Your task to perform on an android device: turn on data saver in the chrome app Image 0: 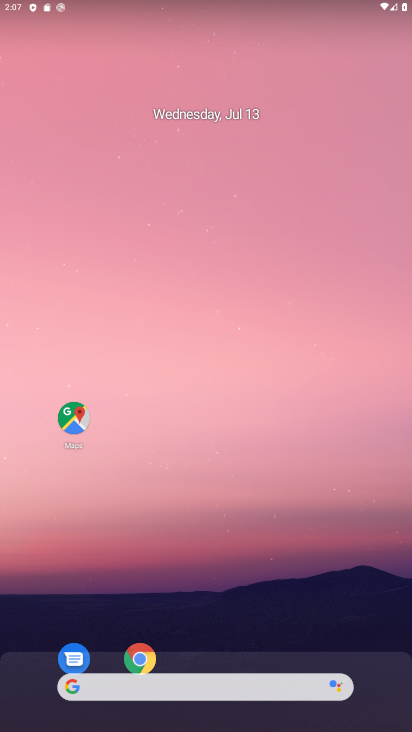
Step 0: click (136, 659)
Your task to perform on an android device: turn on data saver in the chrome app Image 1: 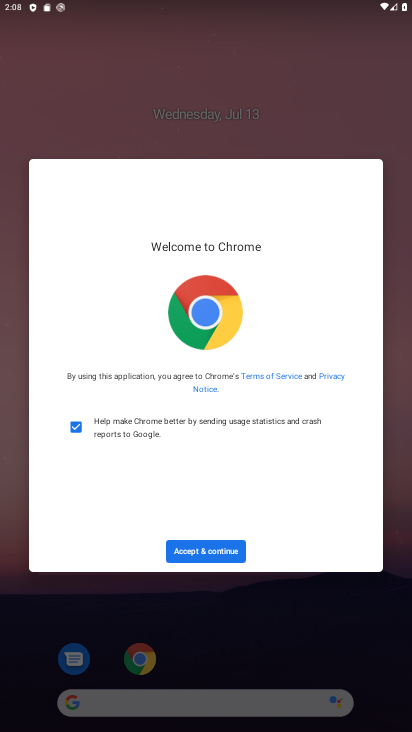
Step 1: click (205, 550)
Your task to perform on an android device: turn on data saver in the chrome app Image 2: 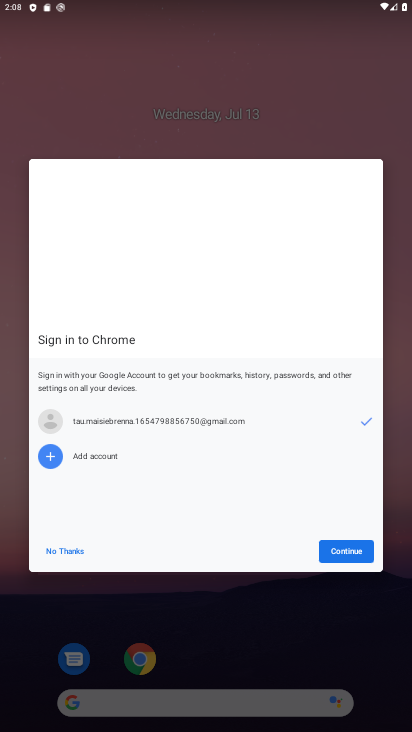
Step 2: click (336, 552)
Your task to perform on an android device: turn on data saver in the chrome app Image 3: 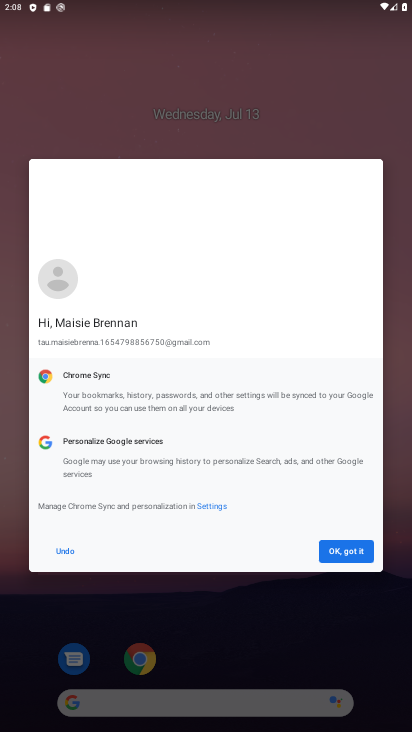
Step 3: click (342, 550)
Your task to perform on an android device: turn on data saver in the chrome app Image 4: 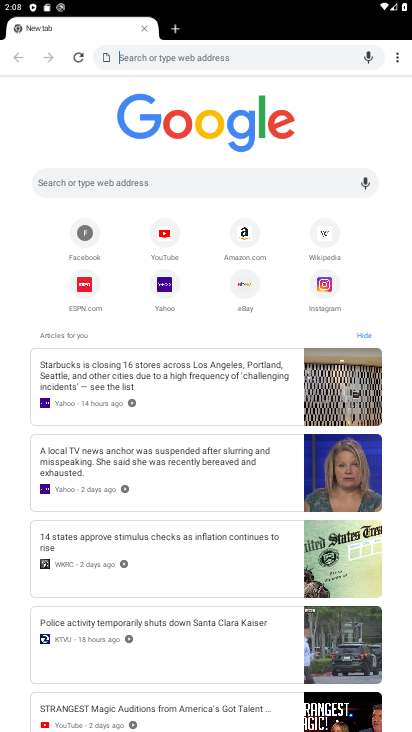
Step 4: click (400, 56)
Your task to perform on an android device: turn on data saver in the chrome app Image 5: 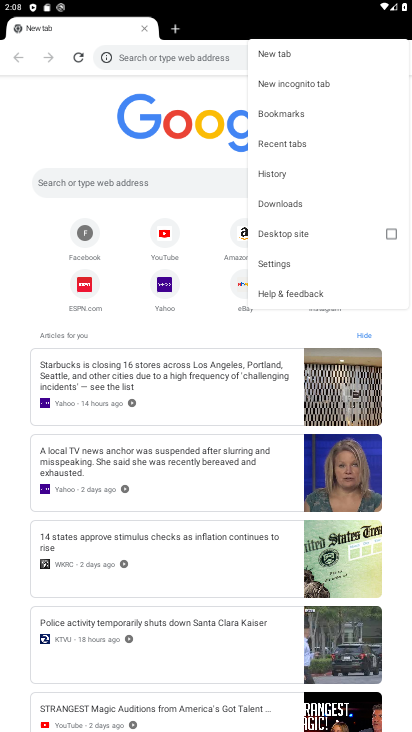
Step 5: click (287, 256)
Your task to perform on an android device: turn on data saver in the chrome app Image 6: 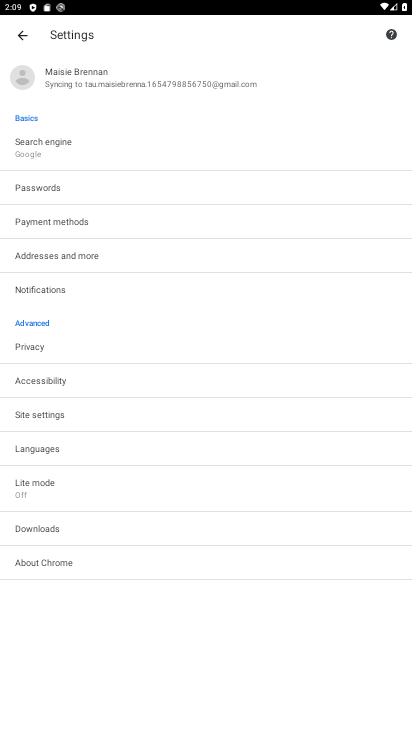
Step 6: click (71, 493)
Your task to perform on an android device: turn on data saver in the chrome app Image 7: 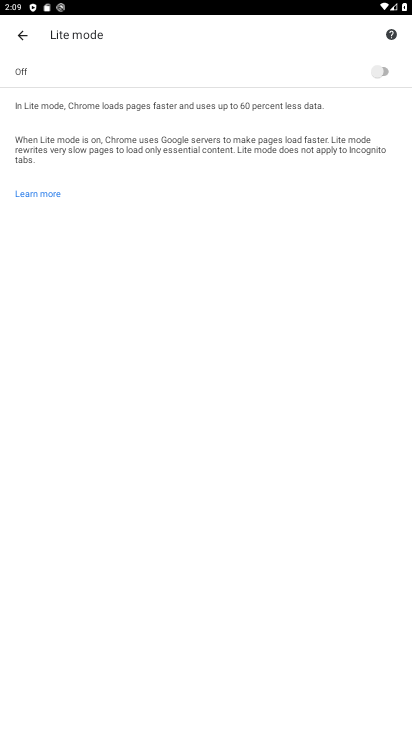
Step 7: click (379, 66)
Your task to perform on an android device: turn on data saver in the chrome app Image 8: 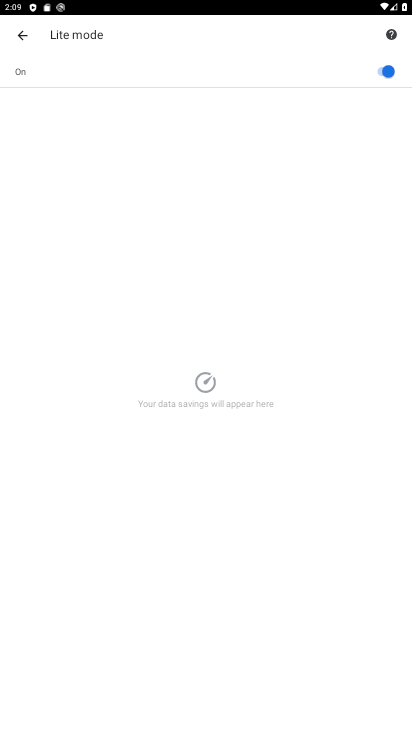
Step 8: task complete